Your task to perform on an android device: turn off picture-in-picture Image 0: 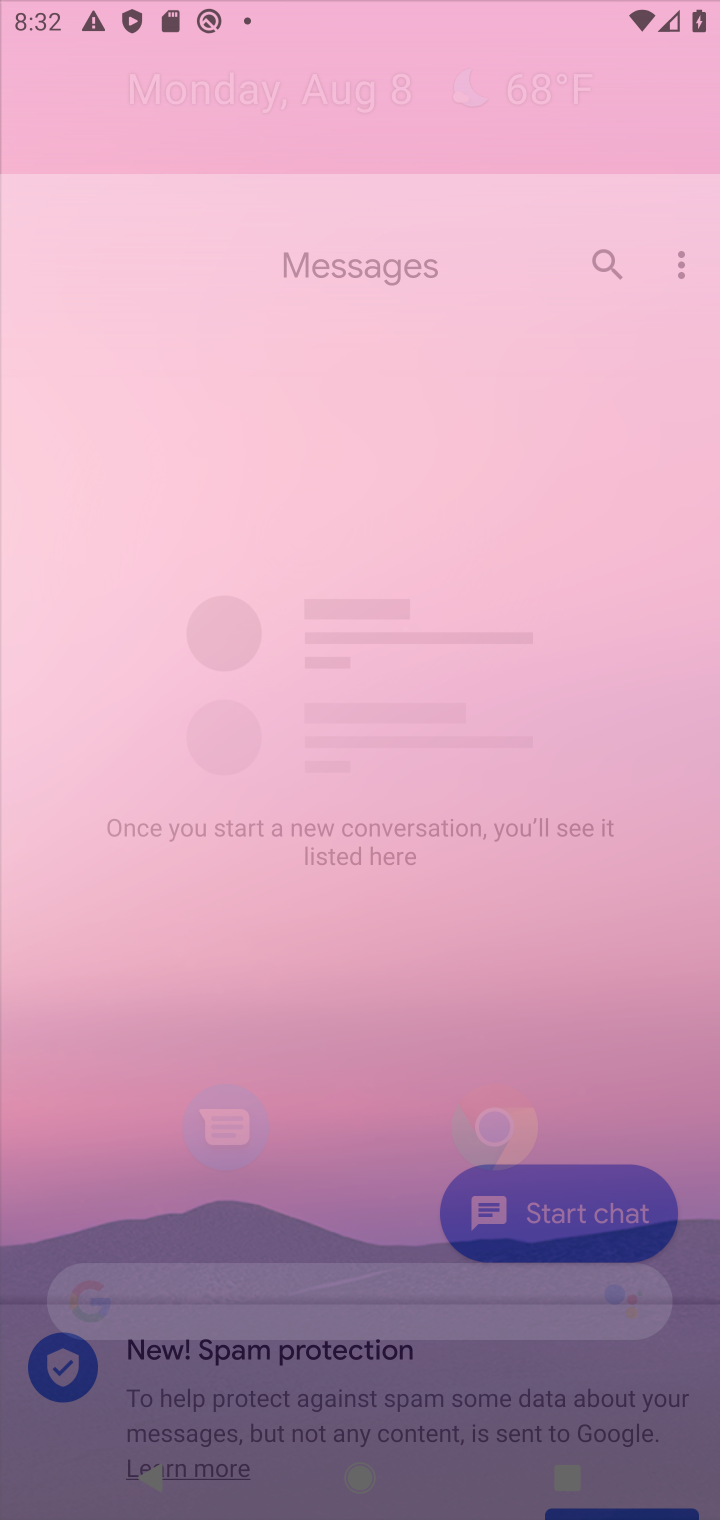
Step 0: press home button
Your task to perform on an android device: turn off picture-in-picture Image 1: 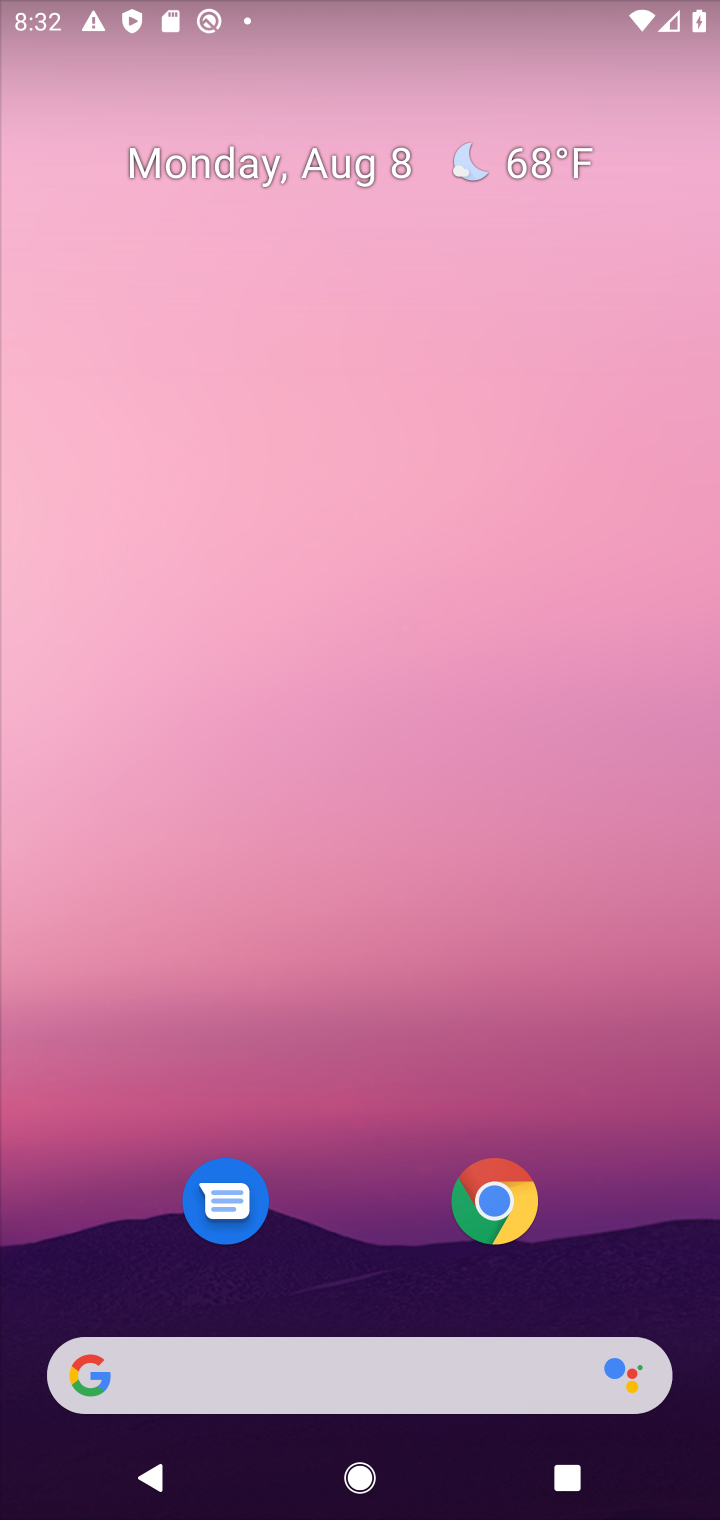
Step 1: press home button
Your task to perform on an android device: turn off picture-in-picture Image 2: 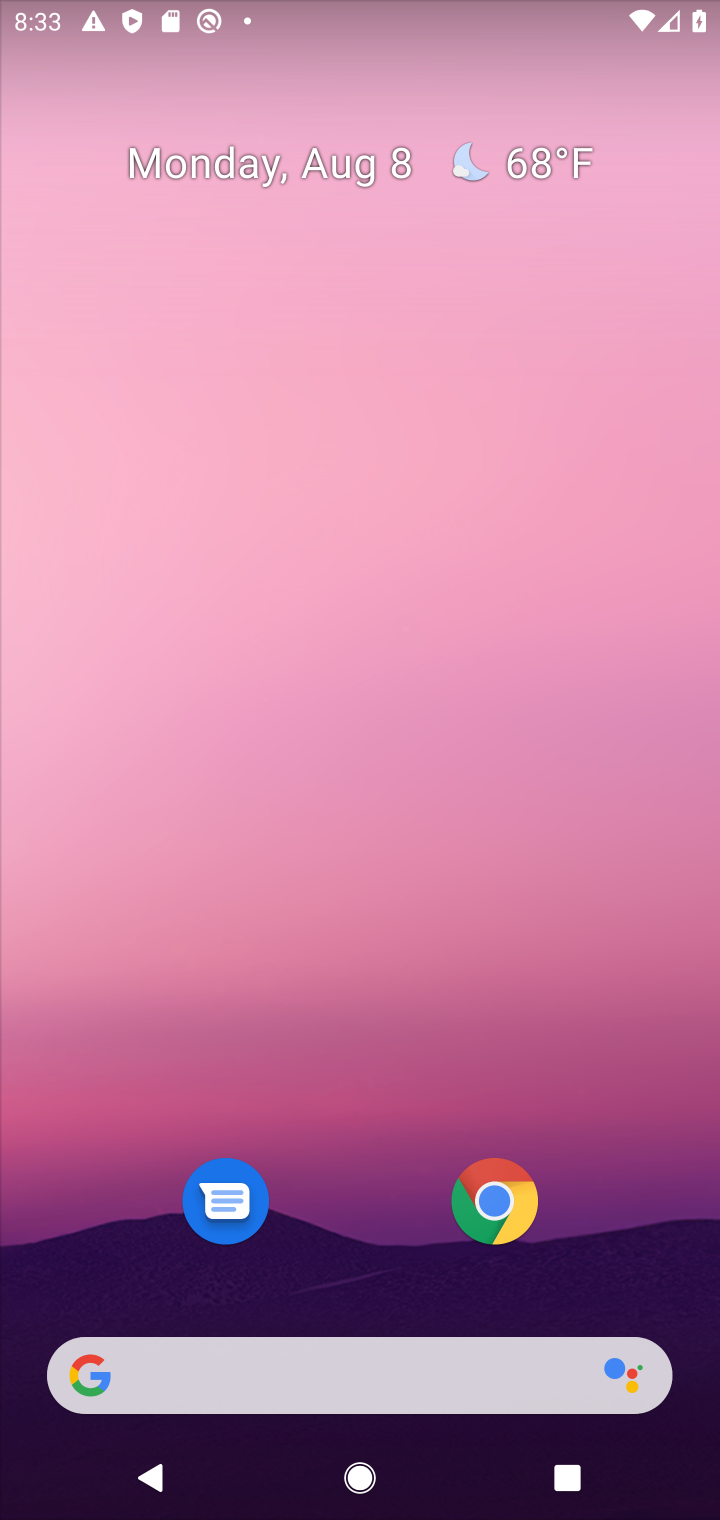
Step 2: drag from (612, 1164) to (645, 287)
Your task to perform on an android device: turn off picture-in-picture Image 3: 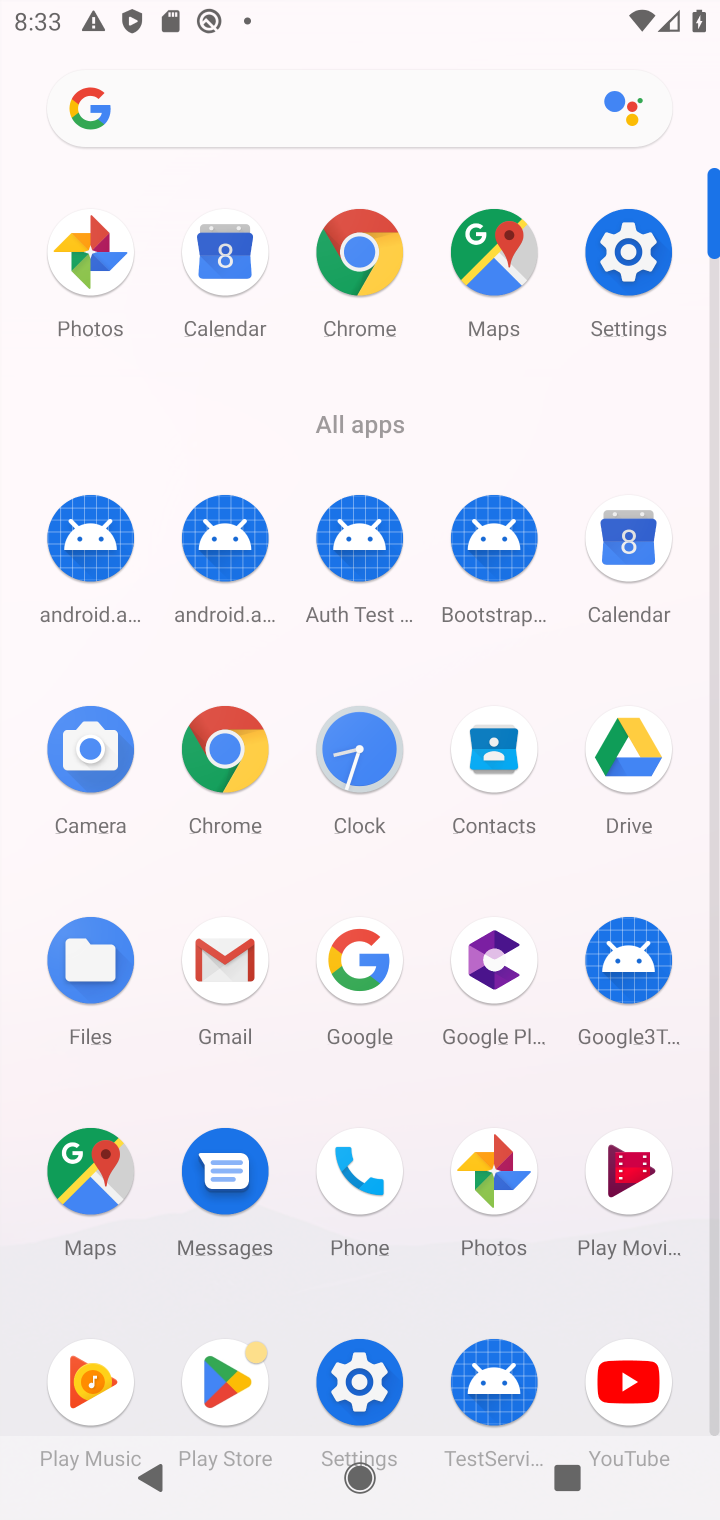
Step 3: click (613, 256)
Your task to perform on an android device: turn off picture-in-picture Image 4: 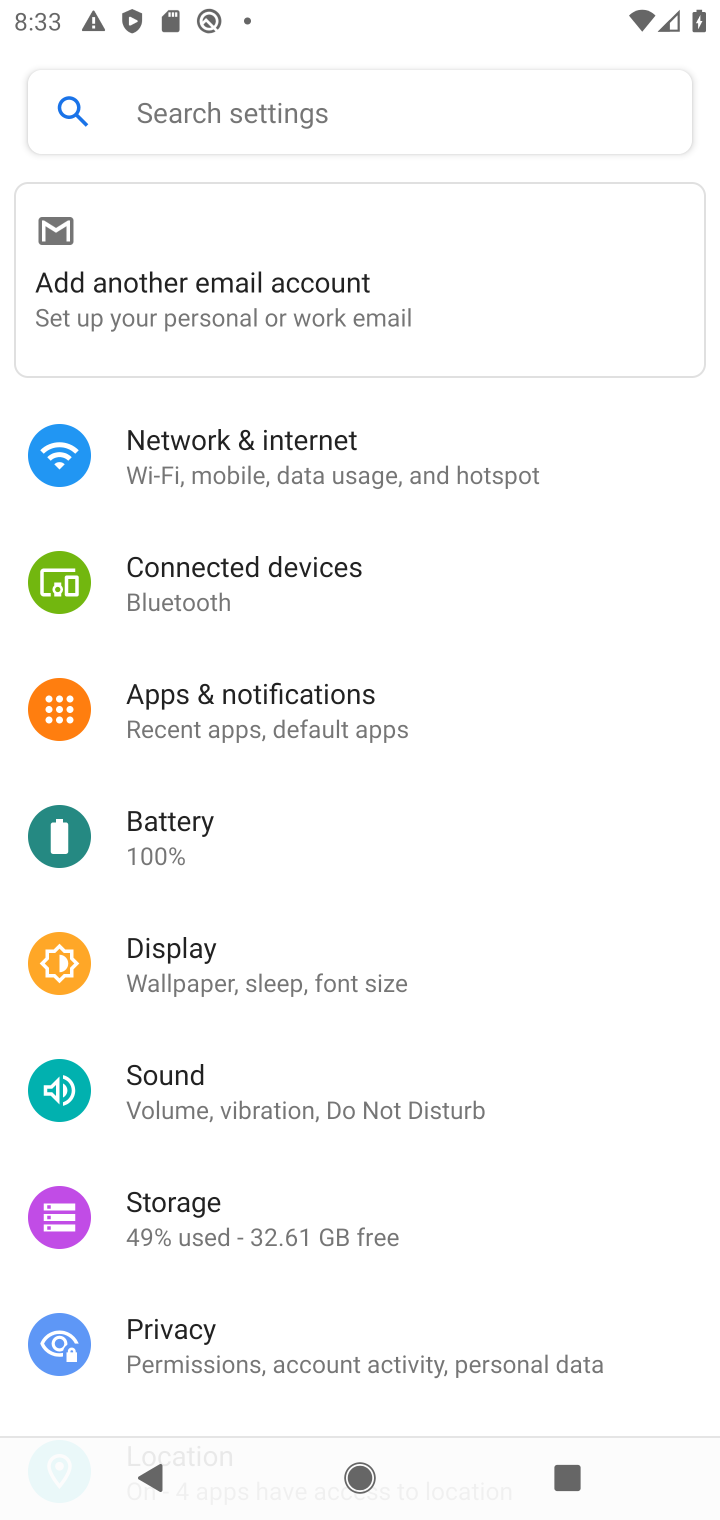
Step 4: drag from (610, 897) to (607, 670)
Your task to perform on an android device: turn off picture-in-picture Image 5: 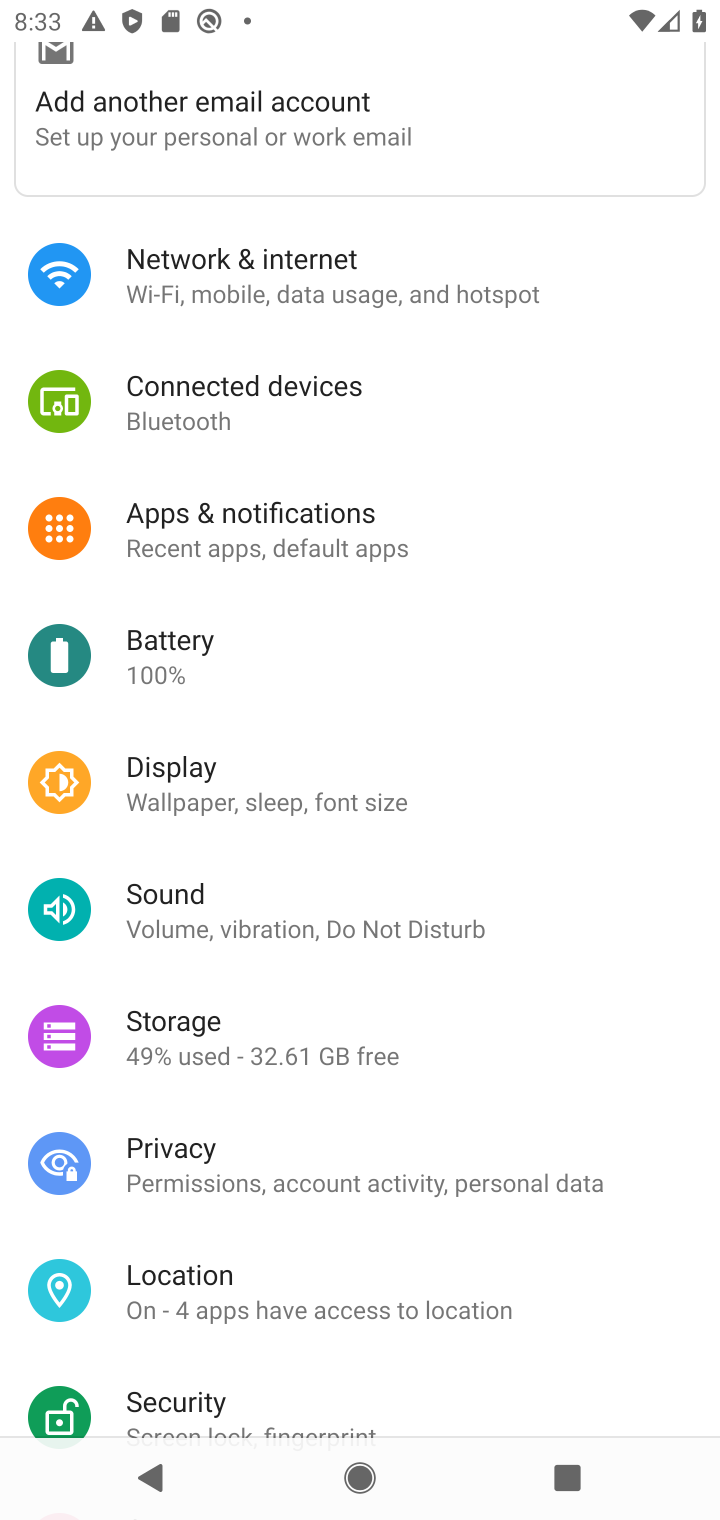
Step 5: drag from (578, 928) to (576, 738)
Your task to perform on an android device: turn off picture-in-picture Image 6: 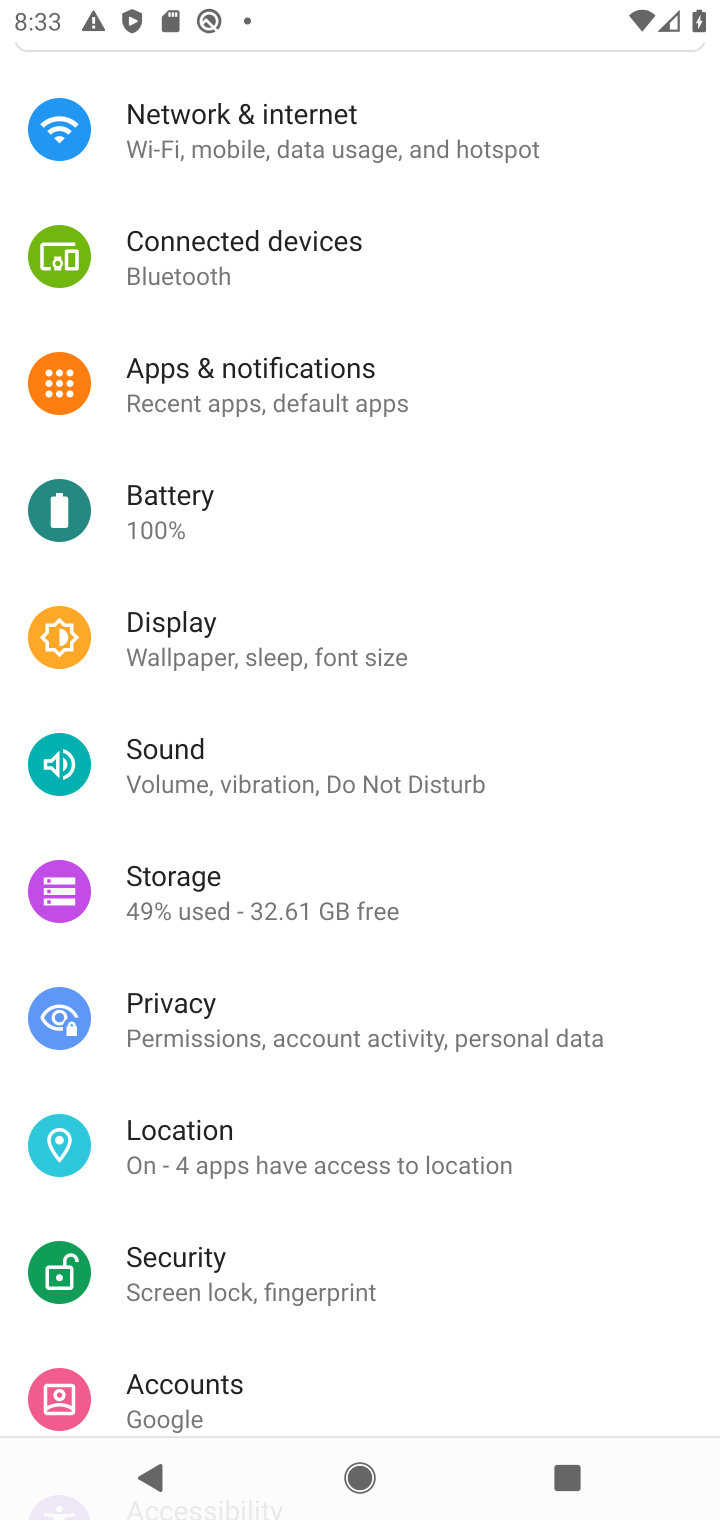
Step 6: drag from (614, 1137) to (632, 771)
Your task to perform on an android device: turn off picture-in-picture Image 7: 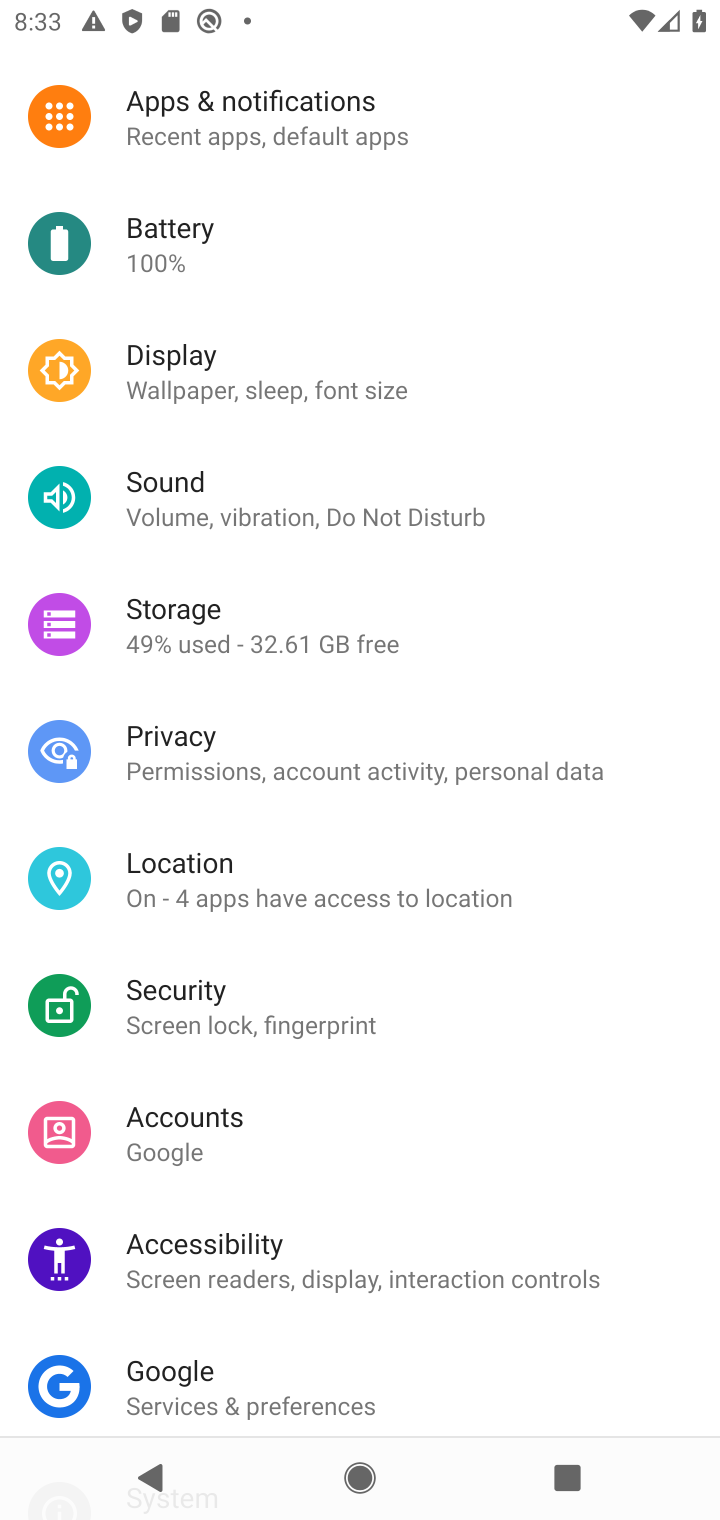
Step 7: drag from (588, 1100) to (633, 773)
Your task to perform on an android device: turn off picture-in-picture Image 8: 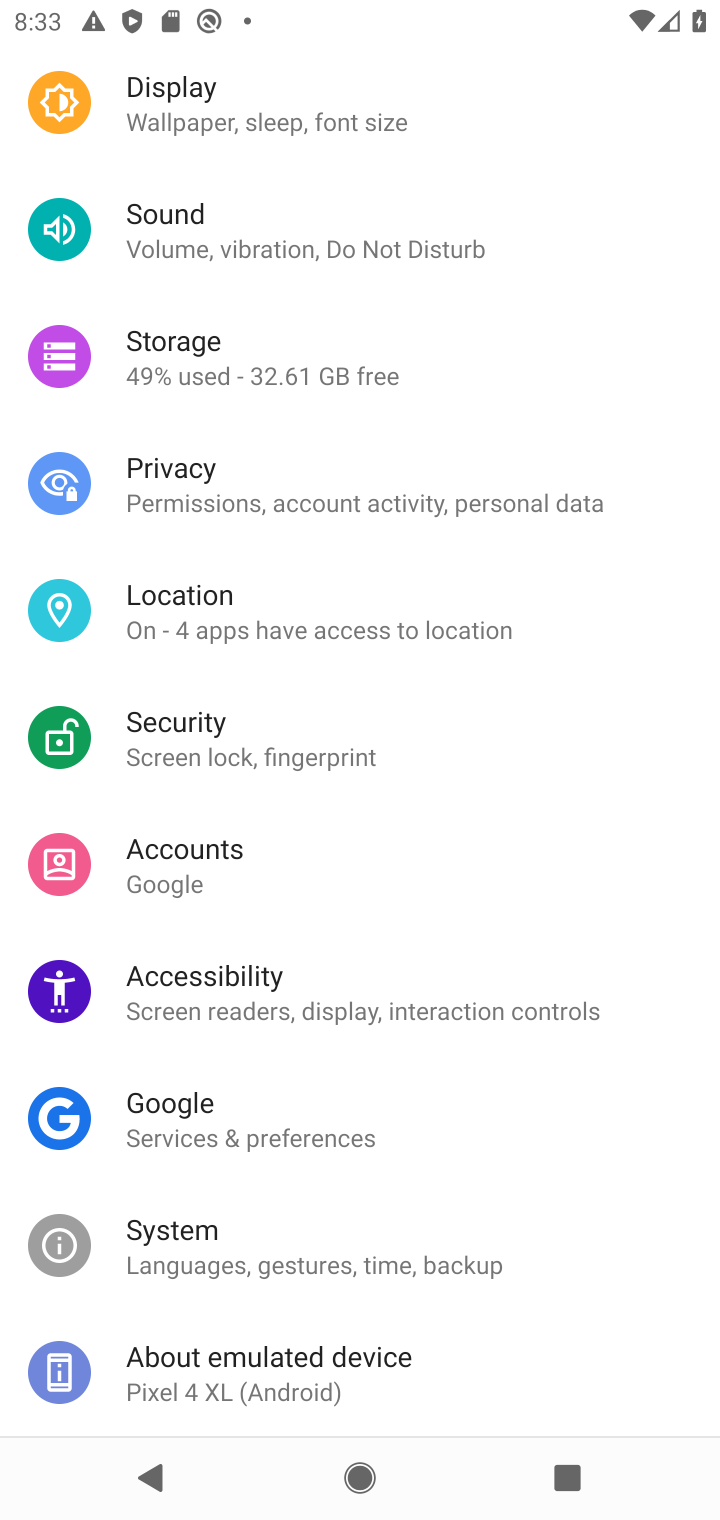
Step 8: drag from (650, 593) to (648, 830)
Your task to perform on an android device: turn off picture-in-picture Image 9: 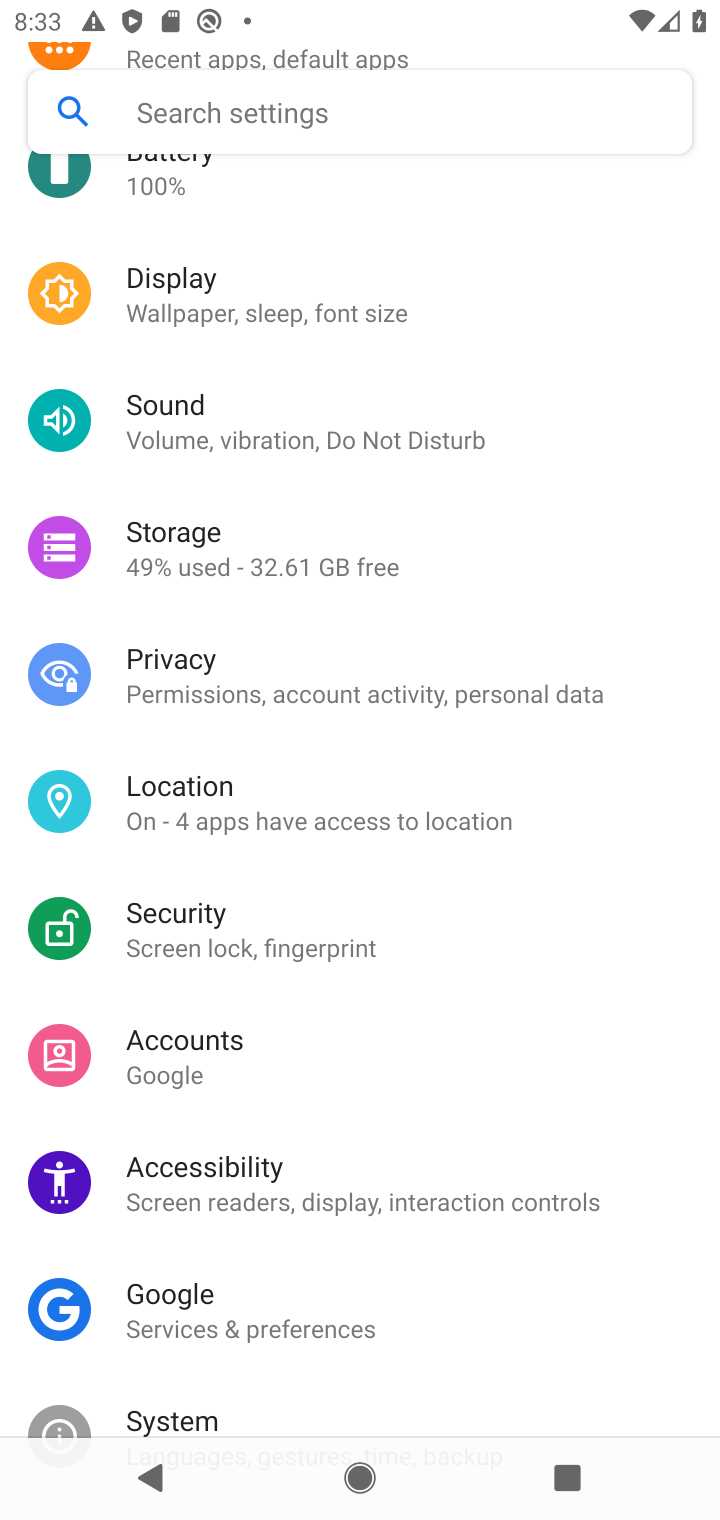
Step 9: drag from (650, 487) to (659, 753)
Your task to perform on an android device: turn off picture-in-picture Image 10: 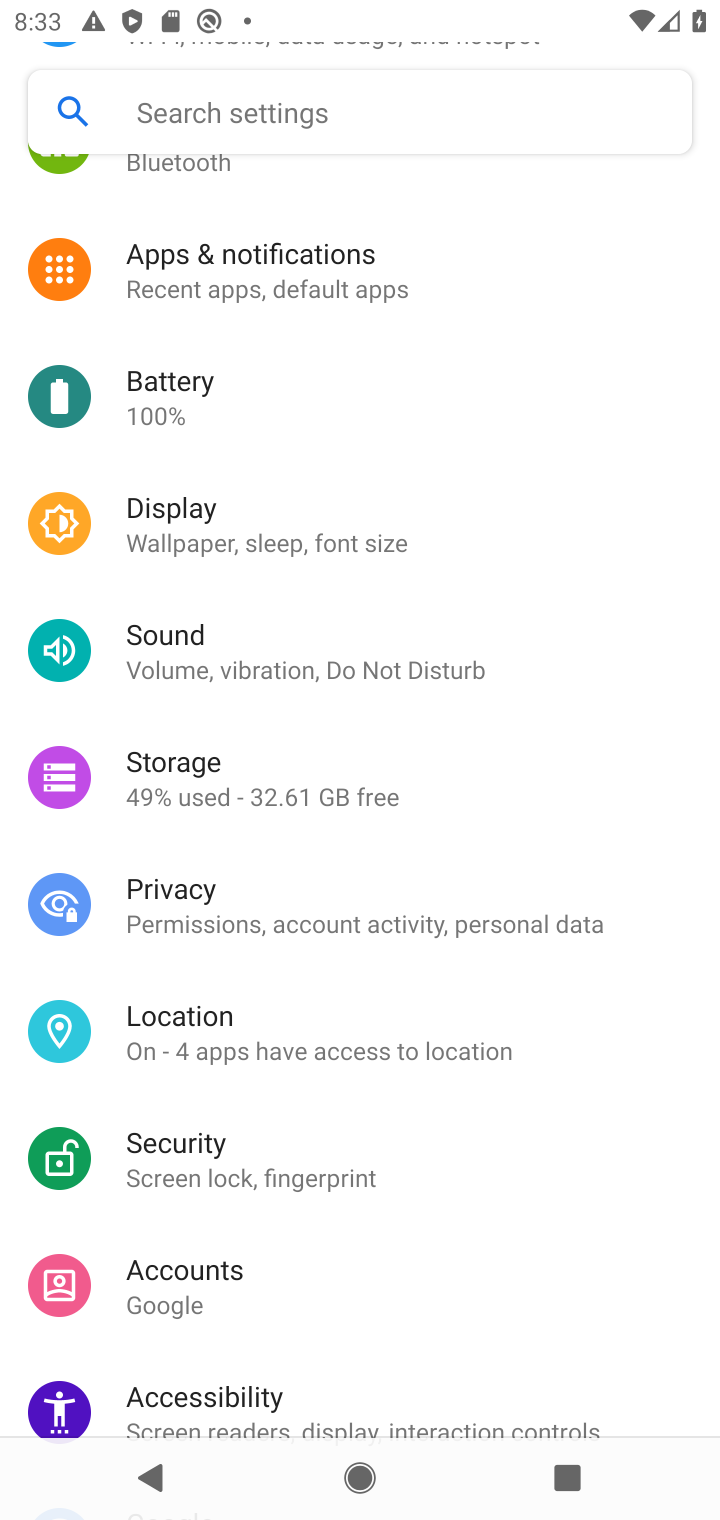
Step 10: drag from (659, 413) to (667, 698)
Your task to perform on an android device: turn off picture-in-picture Image 11: 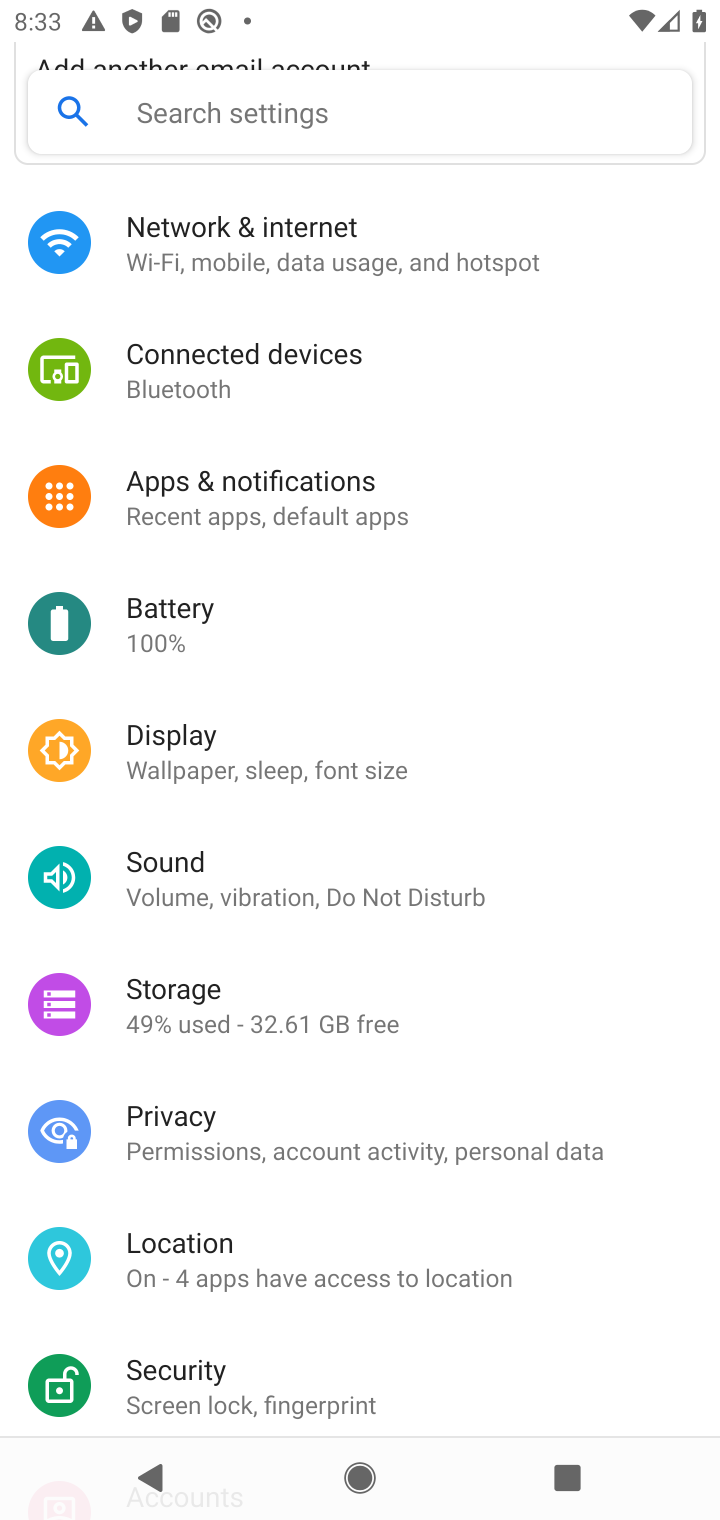
Step 11: drag from (622, 353) to (626, 689)
Your task to perform on an android device: turn off picture-in-picture Image 12: 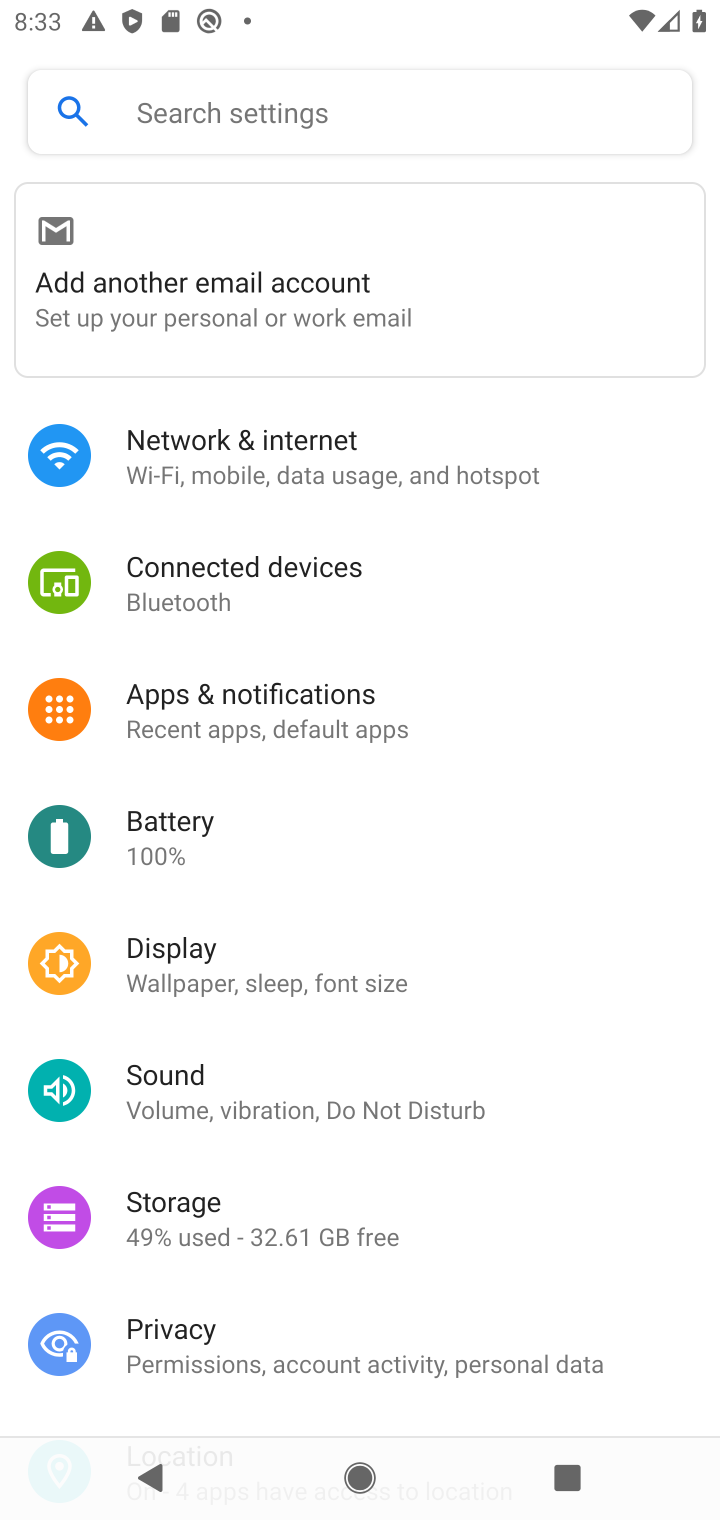
Step 12: click (315, 713)
Your task to perform on an android device: turn off picture-in-picture Image 13: 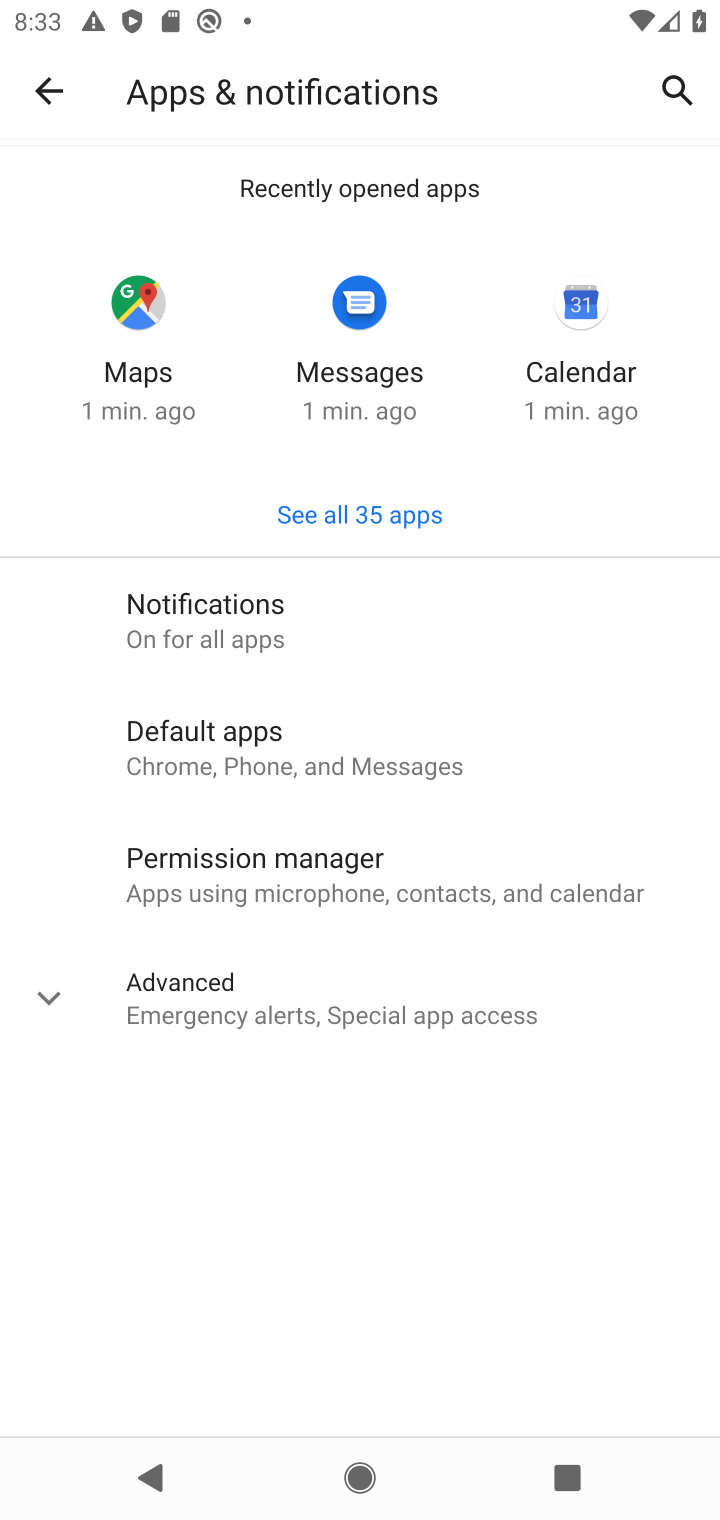
Step 13: click (471, 991)
Your task to perform on an android device: turn off picture-in-picture Image 14: 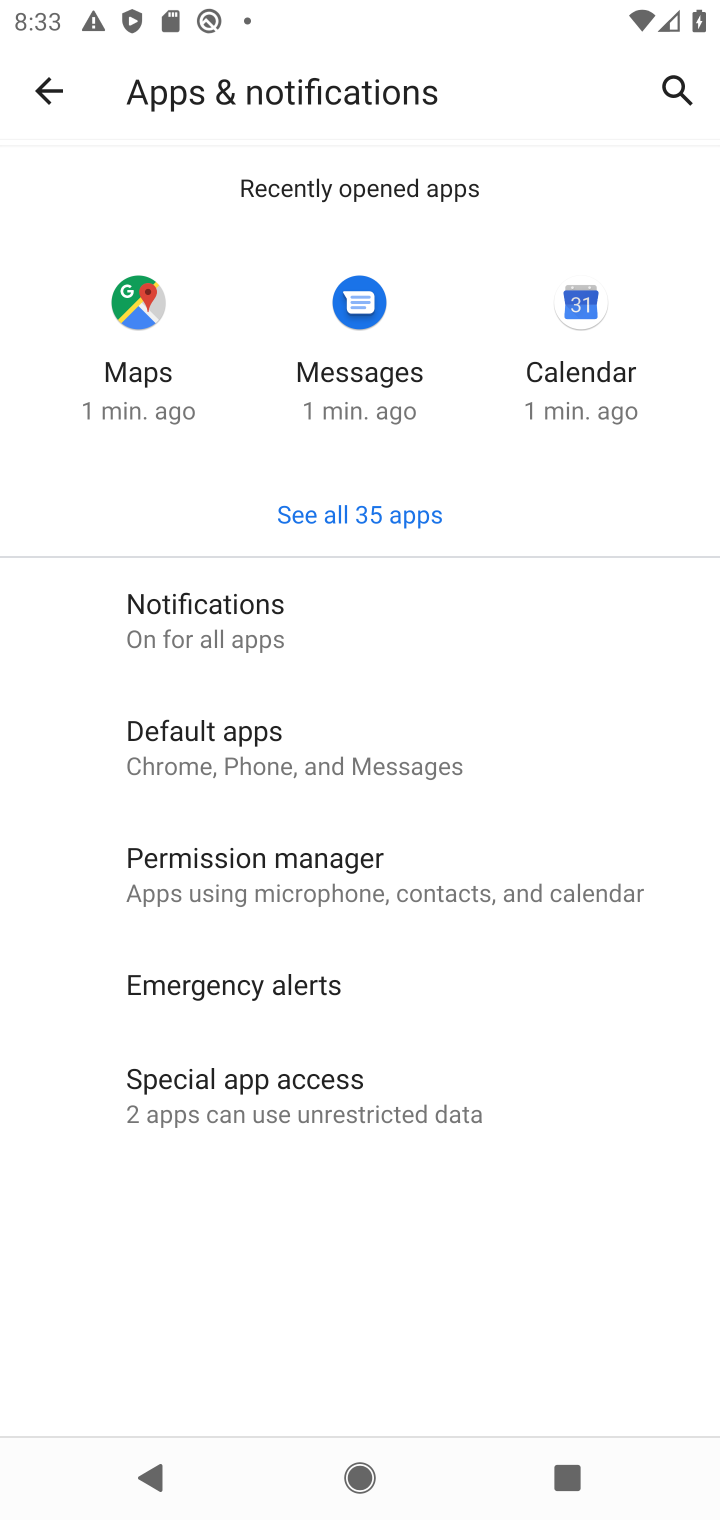
Step 14: click (399, 1127)
Your task to perform on an android device: turn off picture-in-picture Image 15: 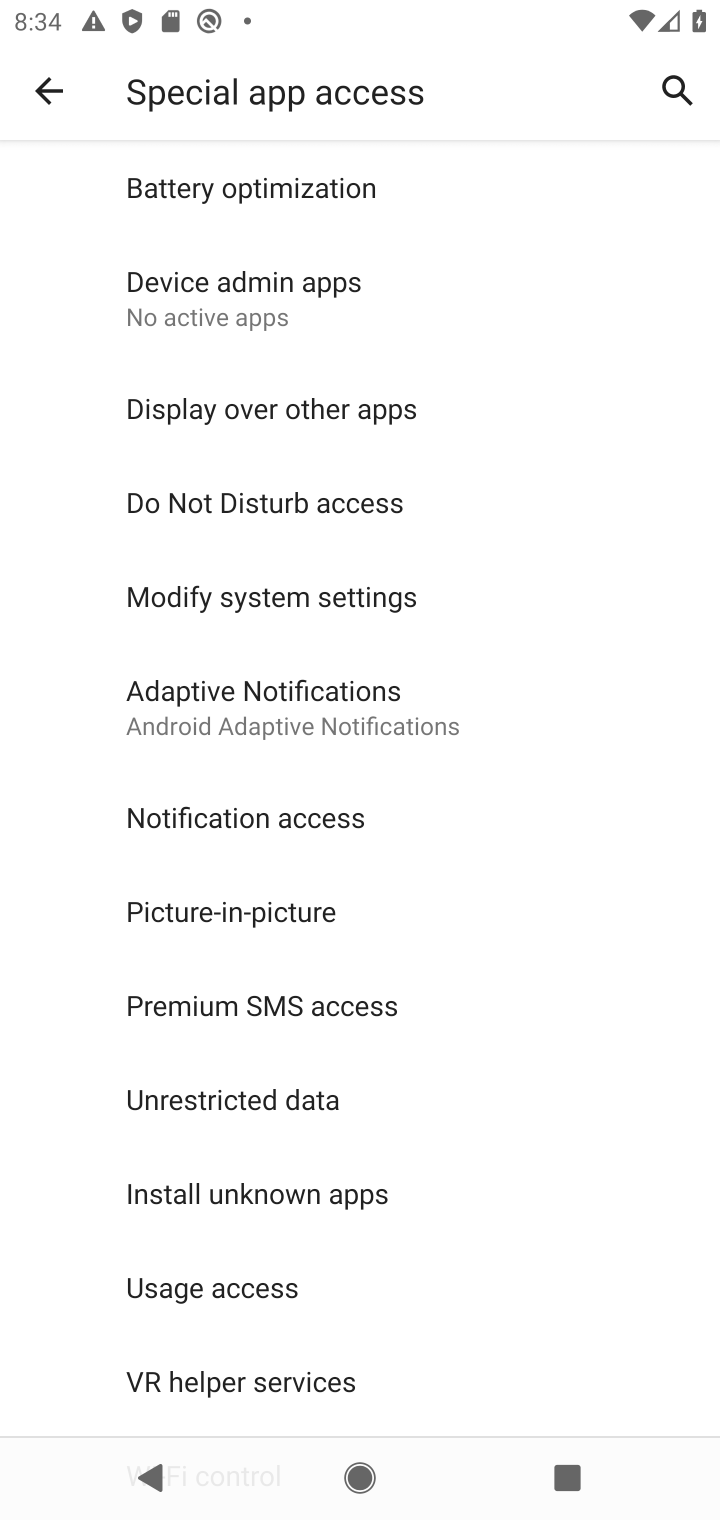
Step 15: click (325, 900)
Your task to perform on an android device: turn off picture-in-picture Image 16: 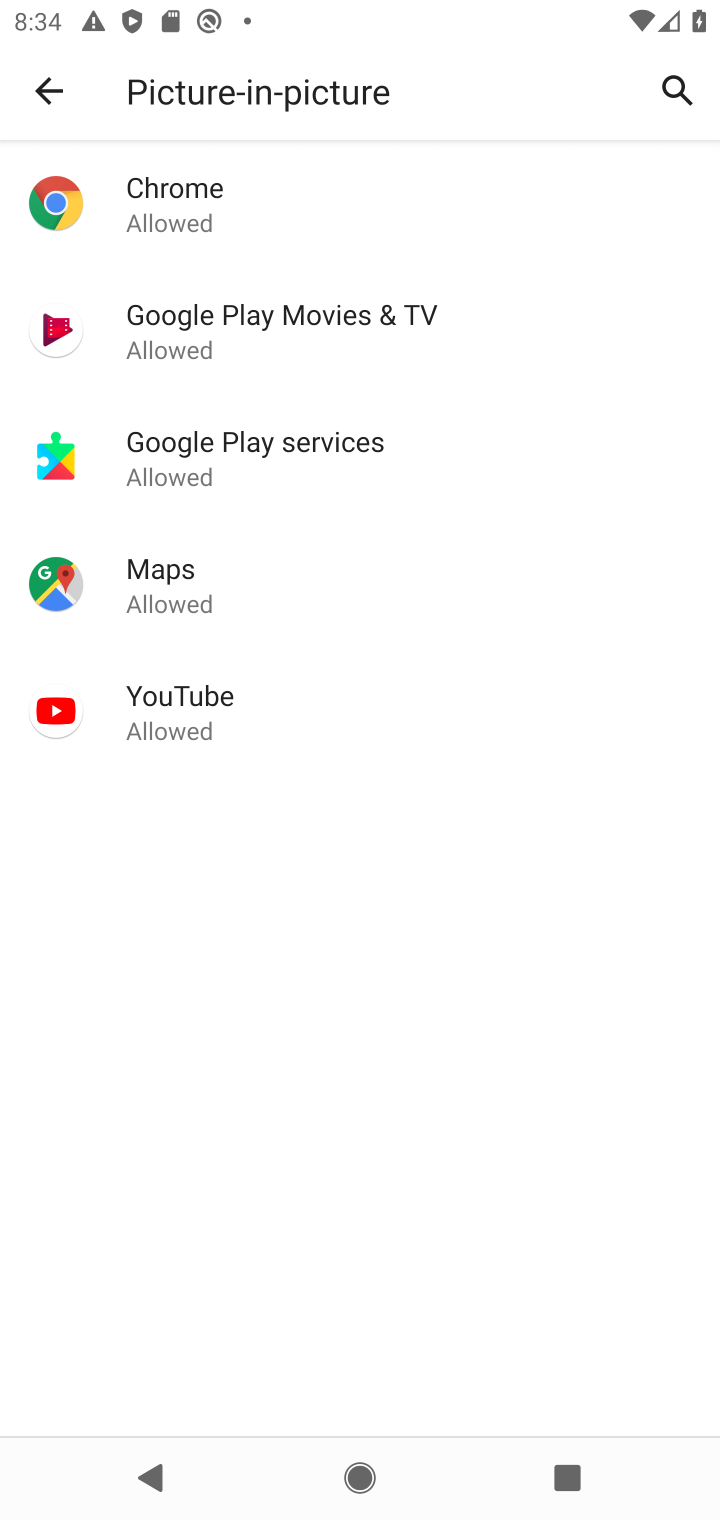
Step 16: click (211, 734)
Your task to perform on an android device: turn off picture-in-picture Image 17: 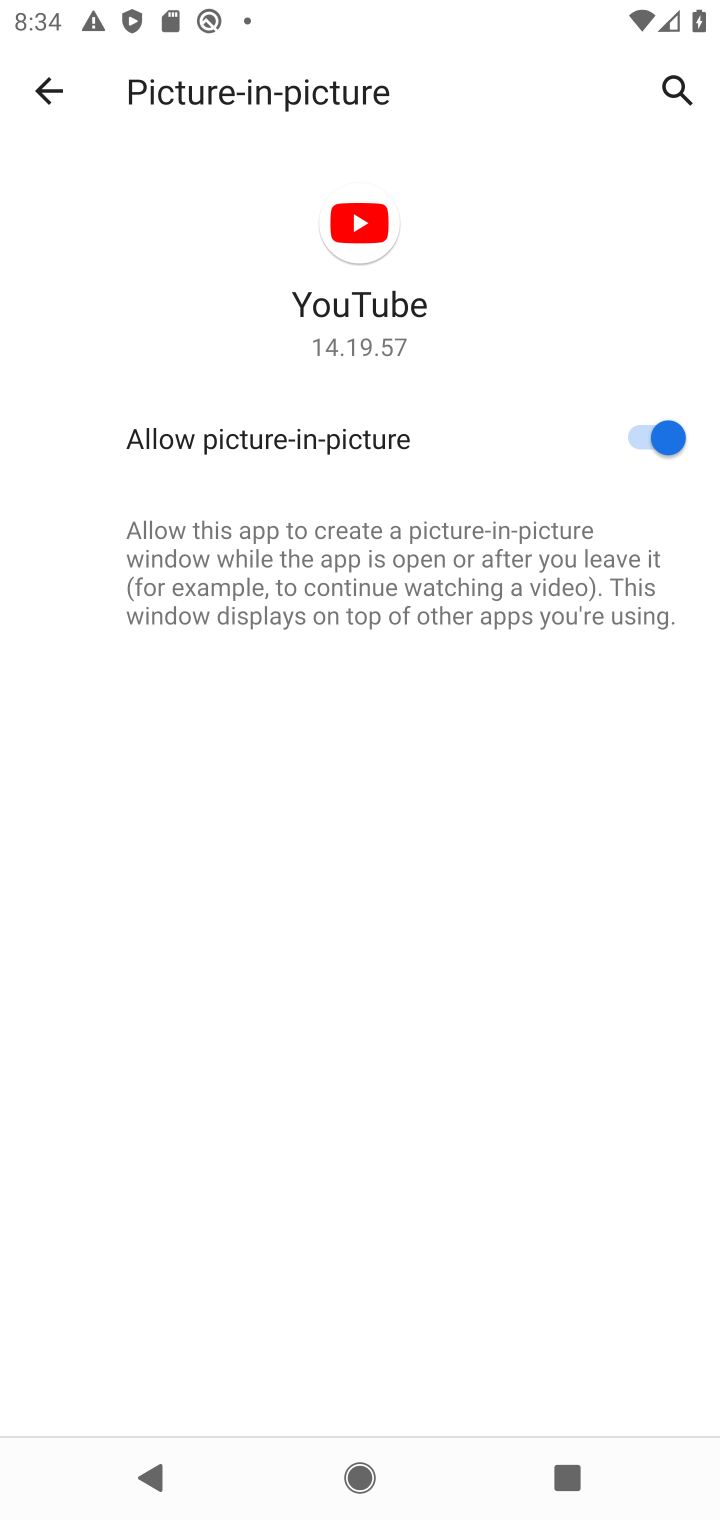
Step 17: click (652, 433)
Your task to perform on an android device: turn off picture-in-picture Image 18: 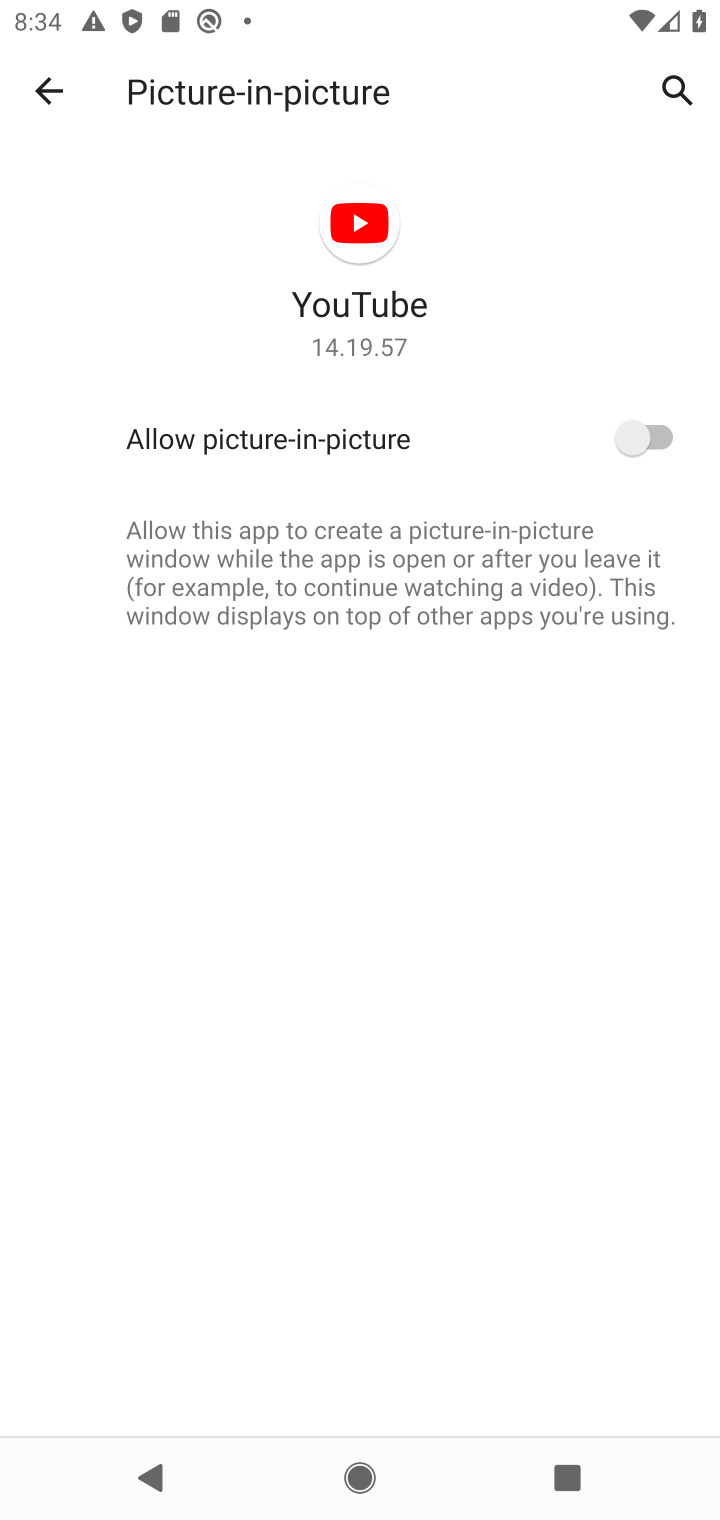
Step 18: task complete